Your task to perform on an android device: Search for vegetarian restaurants on Maps Image 0: 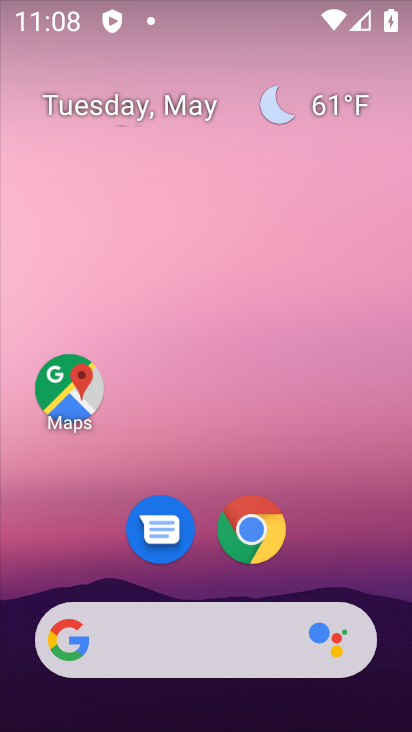
Step 0: click (73, 398)
Your task to perform on an android device: Search for vegetarian restaurants on Maps Image 1: 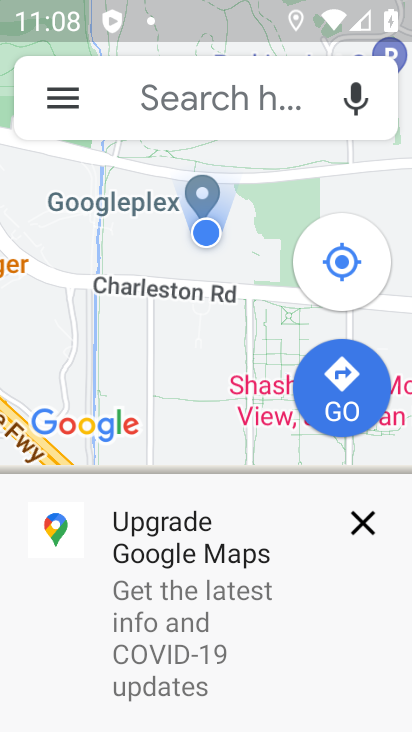
Step 1: click (258, 102)
Your task to perform on an android device: Search for vegetarian restaurants on Maps Image 2: 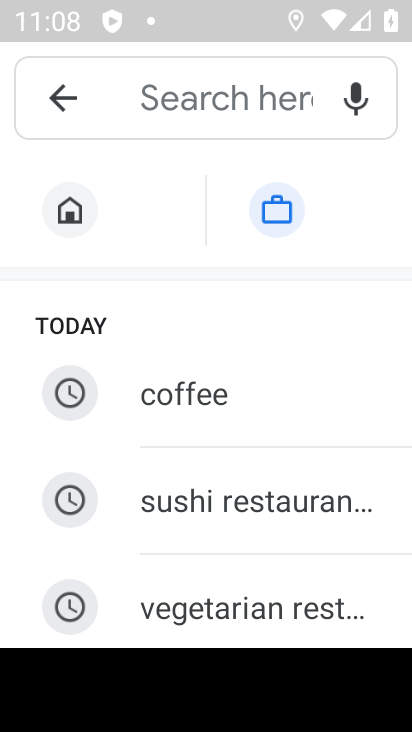
Step 2: click (313, 617)
Your task to perform on an android device: Search for vegetarian restaurants on Maps Image 3: 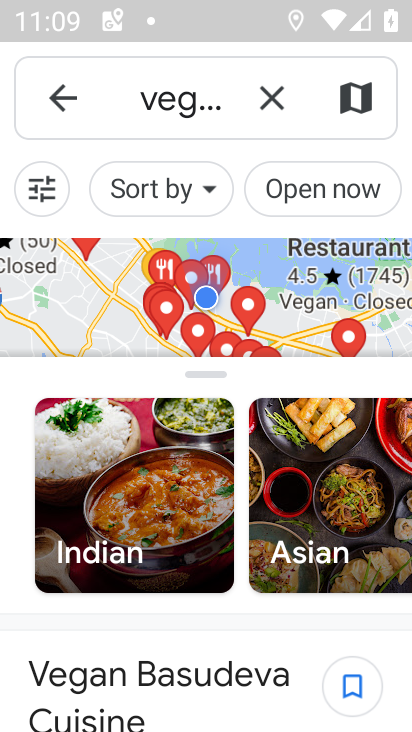
Step 3: task complete